Your task to perform on an android device: open a new tab in the chrome app Image 0: 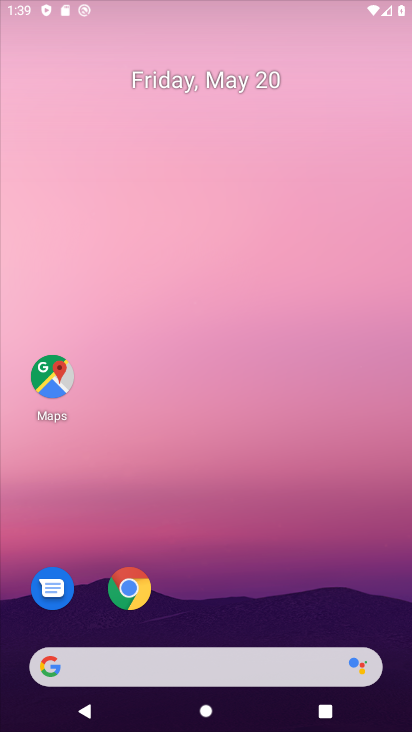
Step 0: drag from (367, 709) to (260, 100)
Your task to perform on an android device: open a new tab in the chrome app Image 1: 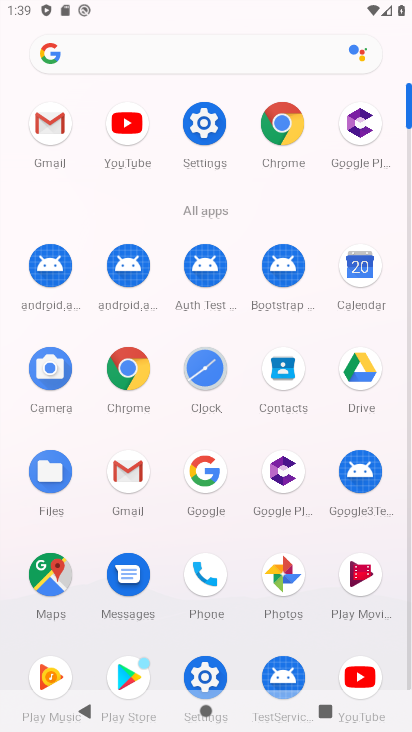
Step 1: click (282, 137)
Your task to perform on an android device: open a new tab in the chrome app Image 2: 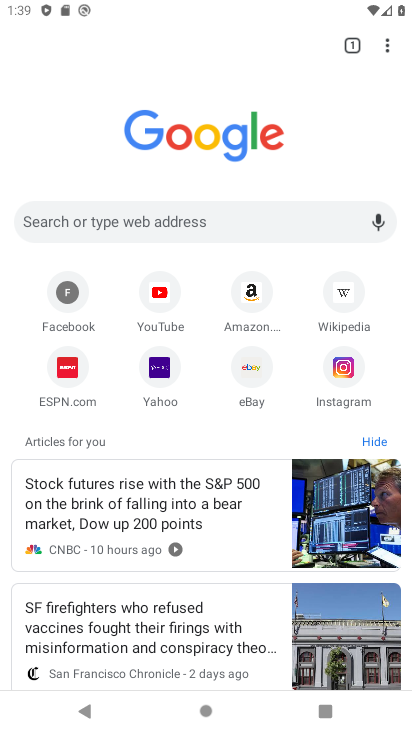
Step 2: drag from (384, 48) to (213, 83)
Your task to perform on an android device: open a new tab in the chrome app Image 3: 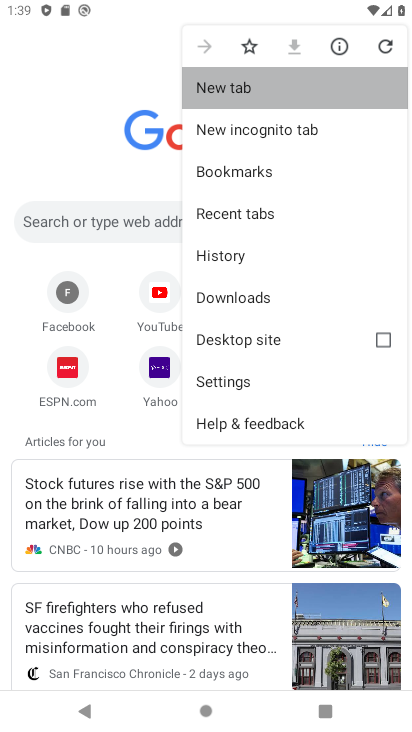
Step 3: click (211, 90)
Your task to perform on an android device: open a new tab in the chrome app Image 4: 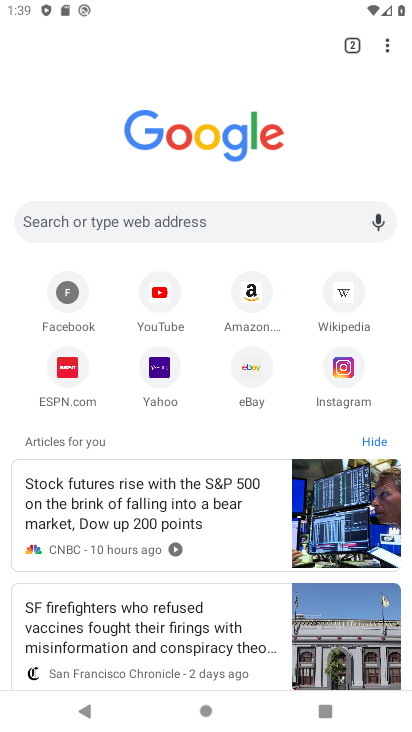
Step 4: task complete